Your task to perform on an android device: turn notification dots on Image 0: 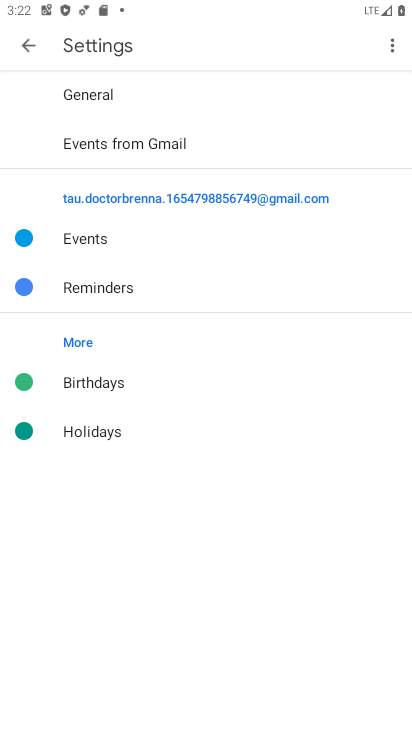
Step 0: press home button
Your task to perform on an android device: turn notification dots on Image 1: 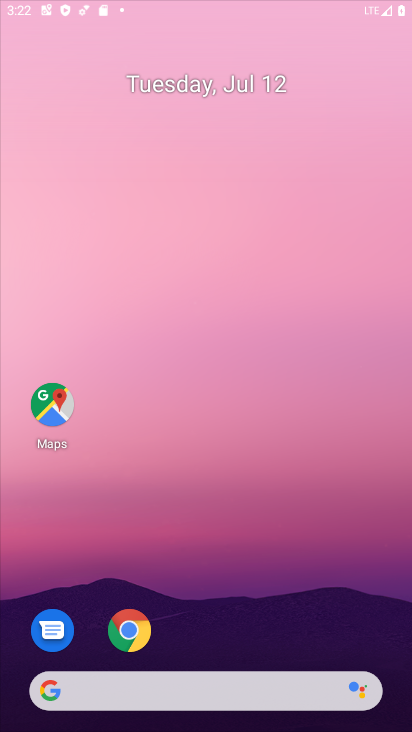
Step 1: drag from (309, 626) to (291, 3)
Your task to perform on an android device: turn notification dots on Image 2: 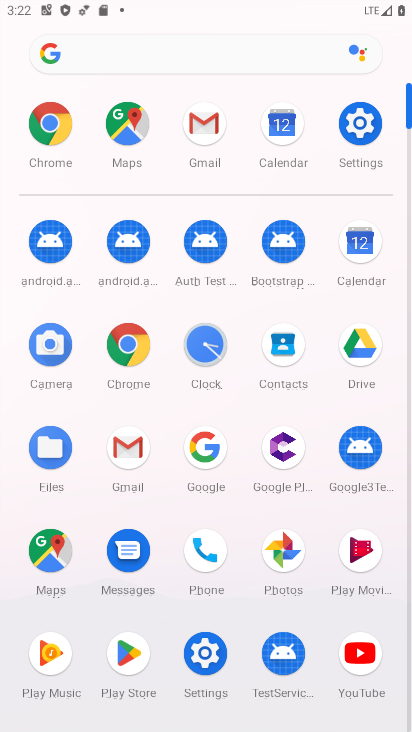
Step 2: click (360, 122)
Your task to perform on an android device: turn notification dots on Image 3: 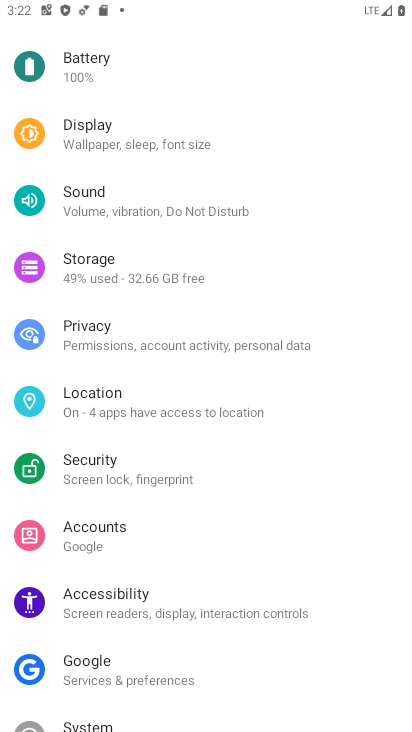
Step 3: drag from (180, 265) to (179, 720)
Your task to perform on an android device: turn notification dots on Image 4: 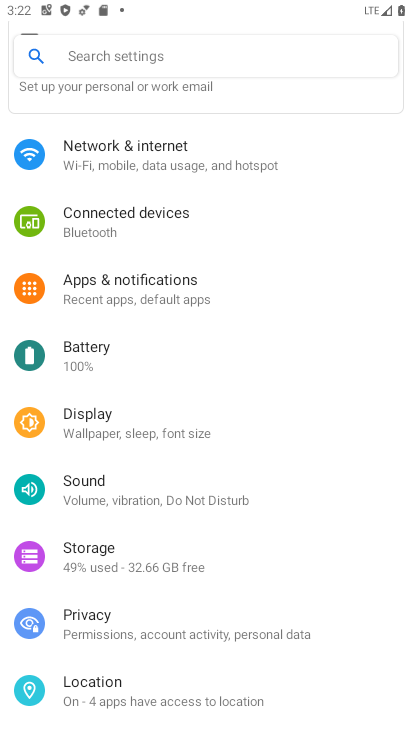
Step 4: click (156, 294)
Your task to perform on an android device: turn notification dots on Image 5: 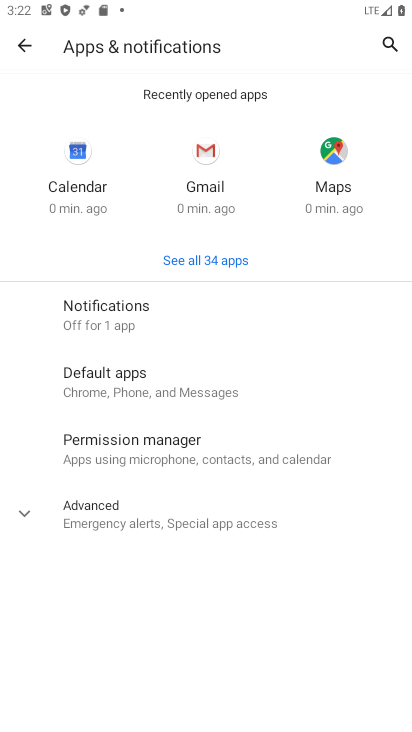
Step 5: click (126, 310)
Your task to perform on an android device: turn notification dots on Image 6: 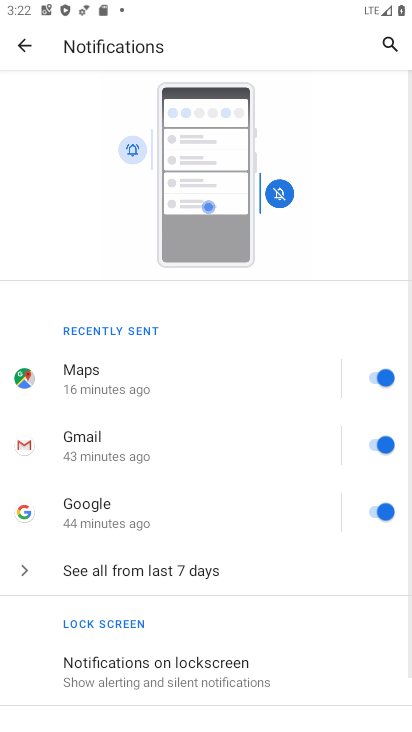
Step 6: drag from (201, 669) to (205, 107)
Your task to perform on an android device: turn notification dots on Image 7: 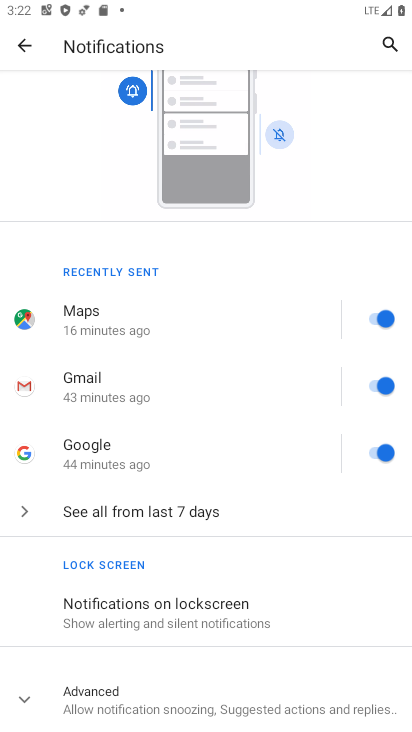
Step 7: click (169, 704)
Your task to perform on an android device: turn notification dots on Image 8: 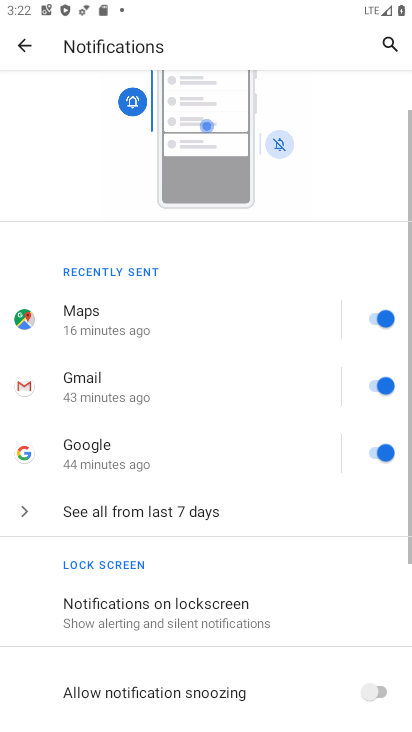
Step 8: drag from (211, 693) to (272, 219)
Your task to perform on an android device: turn notification dots on Image 9: 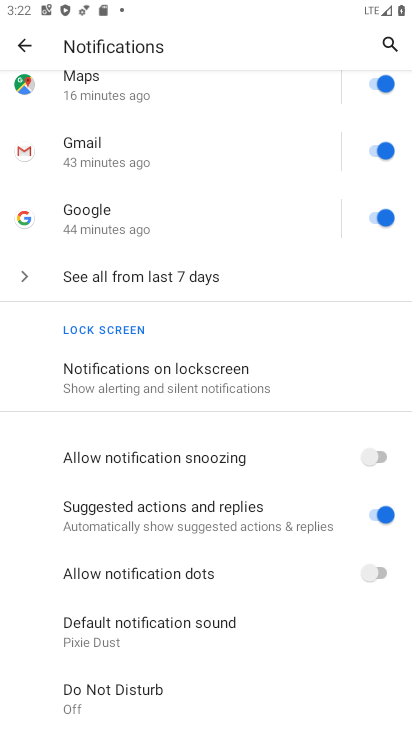
Step 9: click (373, 572)
Your task to perform on an android device: turn notification dots on Image 10: 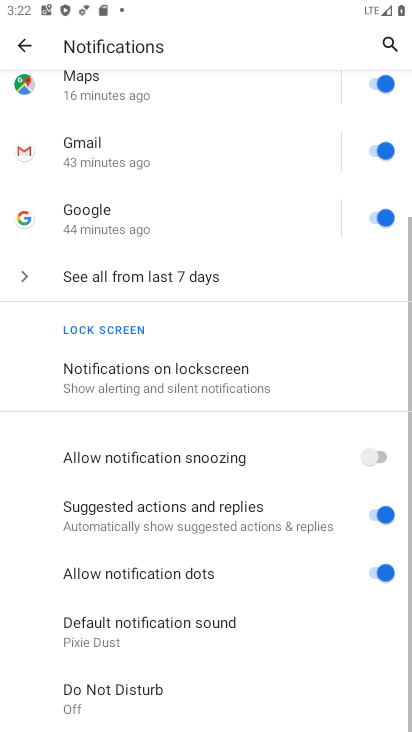
Step 10: task complete